Your task to perform on an android device: Go to Wikipedia Image 0: 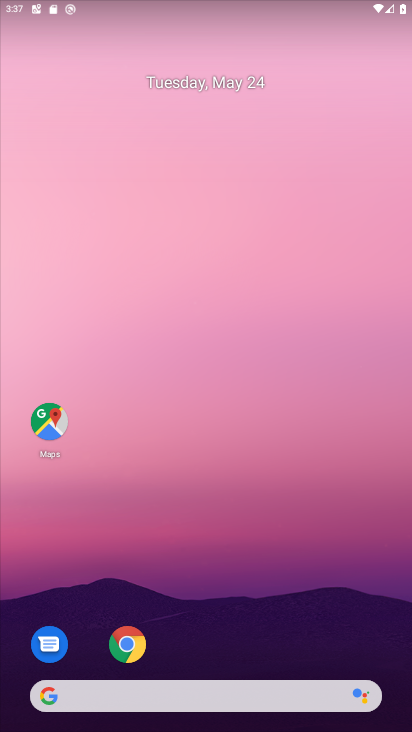
Step 0: drag from (293, 641) to (234, 123)
Your task to perform on an android device: Go to Wikipedia Image 1: 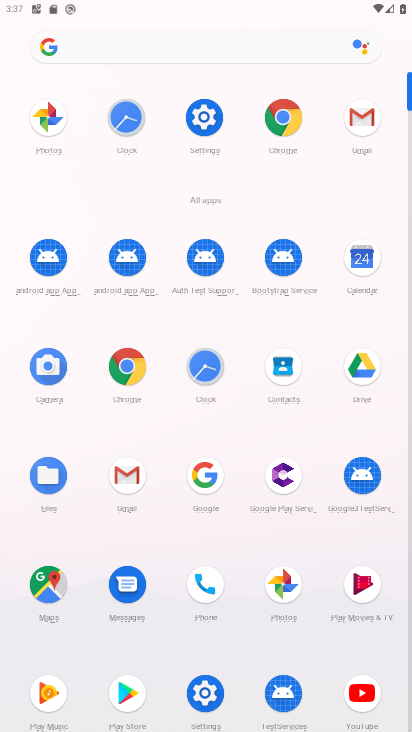
Step 1: click (266, 141)
Your task to perform on an android device: Go to Wikipedia Image 2: 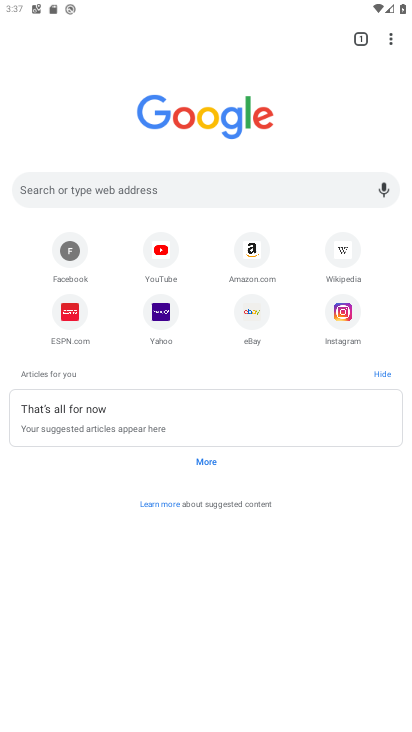
Step 2: click (351, 264)
Your task to perform on an android device: Go to Wikipedia Image 3: 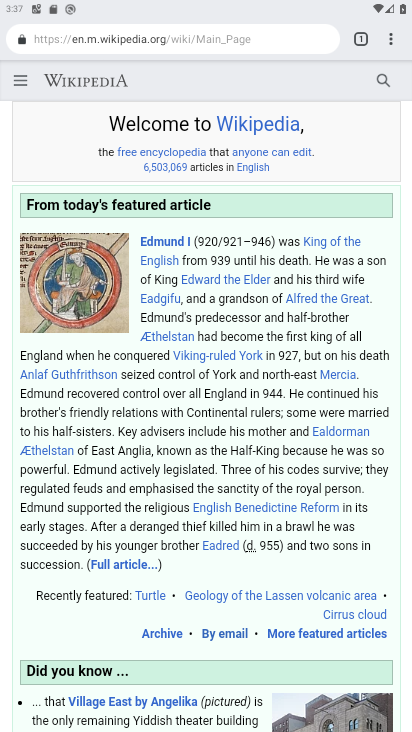
Step 3: task complete